Your task to perform on an android device: delete the emails in spam in the gmail app Image 0: 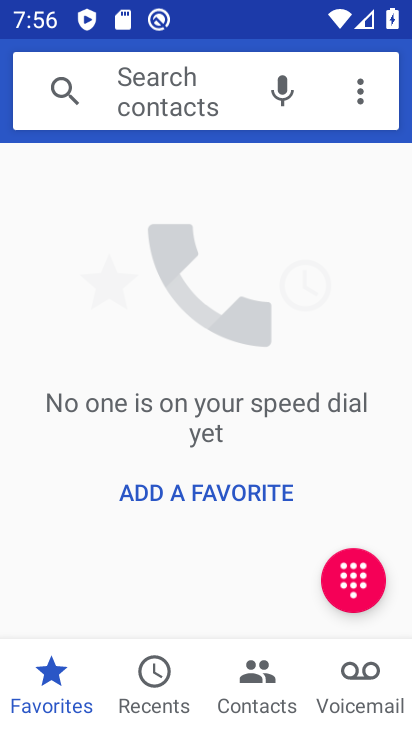
Step 0: press home button
Your task to perform on an android device: delete the emails in spam in the gmail app Image 1: 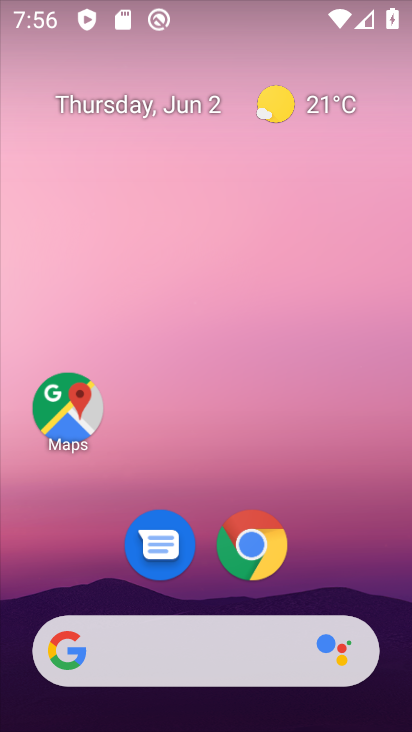
Step 1: drag from (339, 629) to (297, 154)
Your task to perform on an android device: delete the emails in spam in the gmail app Image 2: 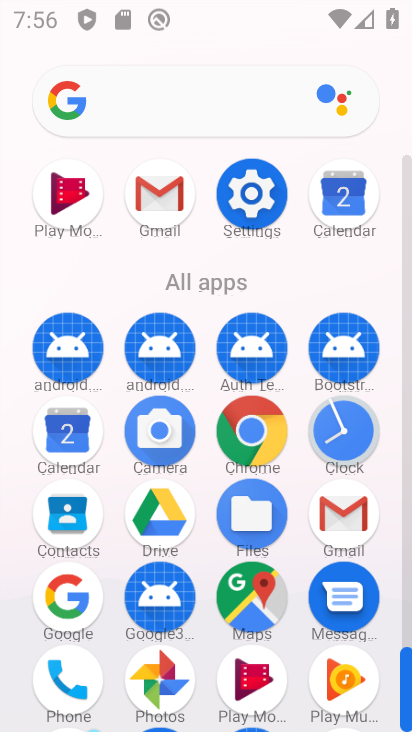
Step 2: click (357, 510)
Your task to perform on an android device: delete the emails in spam in the gmail app Image 3: 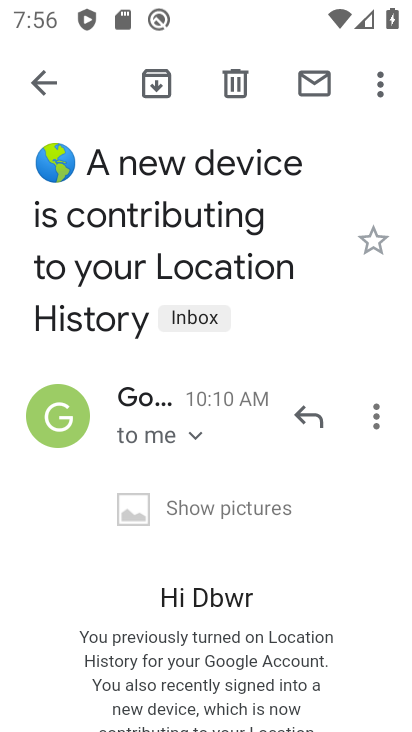
Step 3: click (50, 81)
Your task to perform on an android device: delete the emails in spam in the gmail app Image 4: 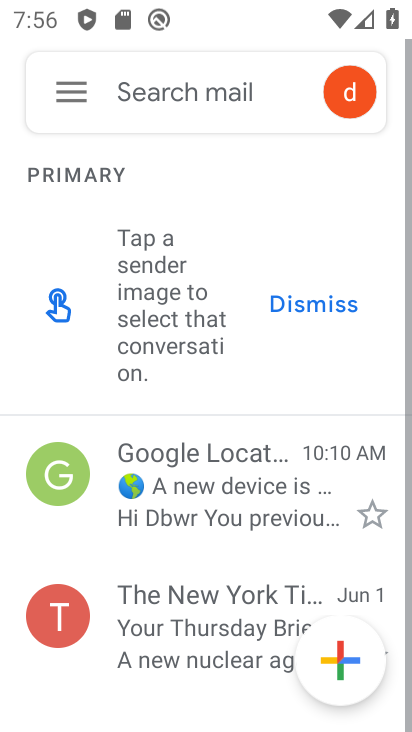
Step 4: click (65, 85)
Your task to perform on an android device: delete the emails in spam in the gmail app Image 5: 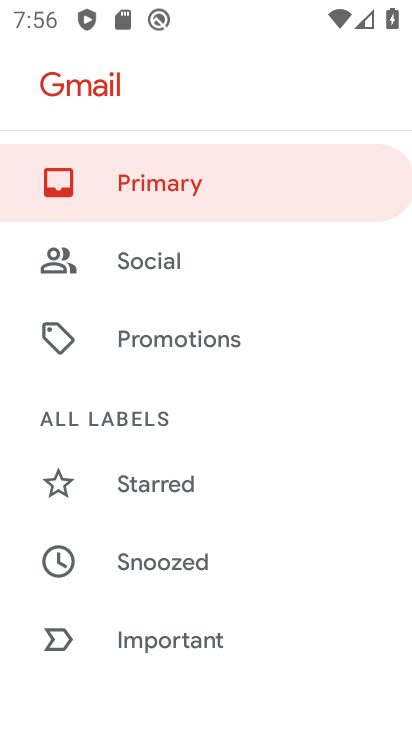
Step 5: drag from (235, 607) to (248, 232)
Your task to perform on an android device: delete the emails in spam in the gmail app Image 6: 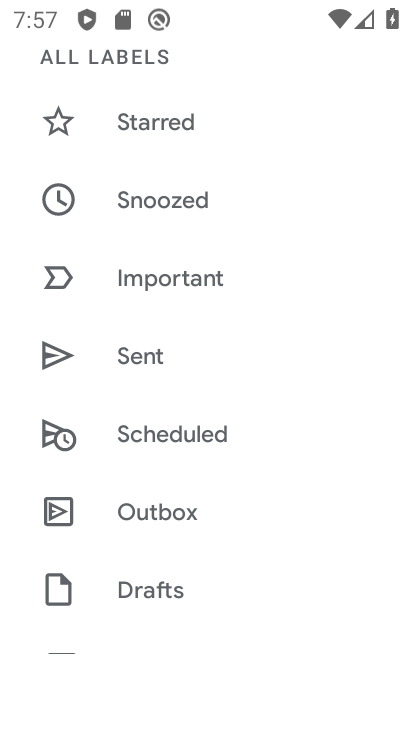
Step 6: drag from (245, 545) to (252, 205)
Your task to perform on an android device: delete the emails in spam in the gmail app Image 7: 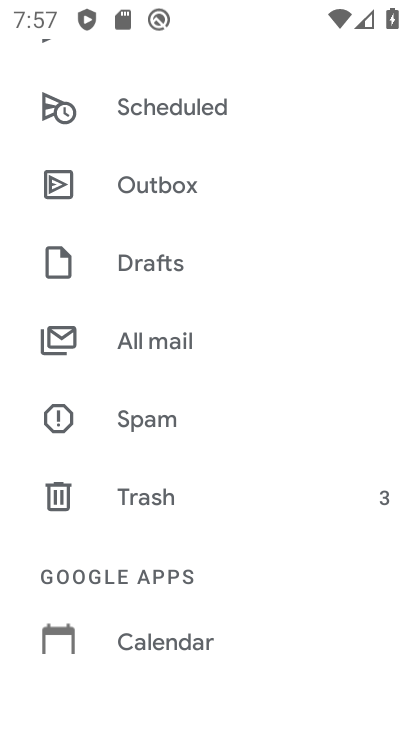
Step 7: click (225, 419)
Your task to perform on an android device: delete the emails in spam in the gmail app Image 8: 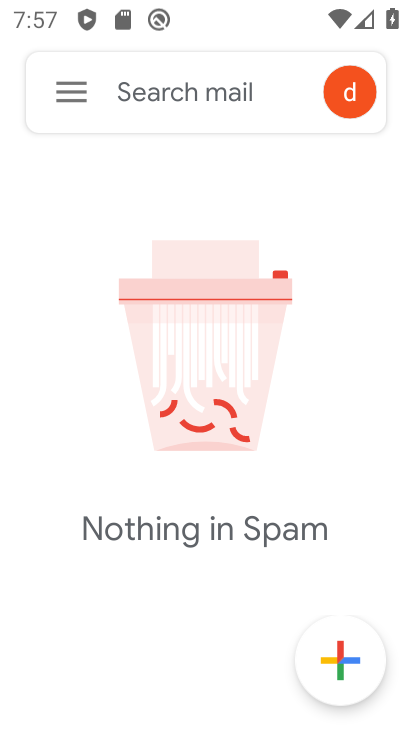
Step 8: task complete